Your task to perform on an android device: See recent photos Image 0: 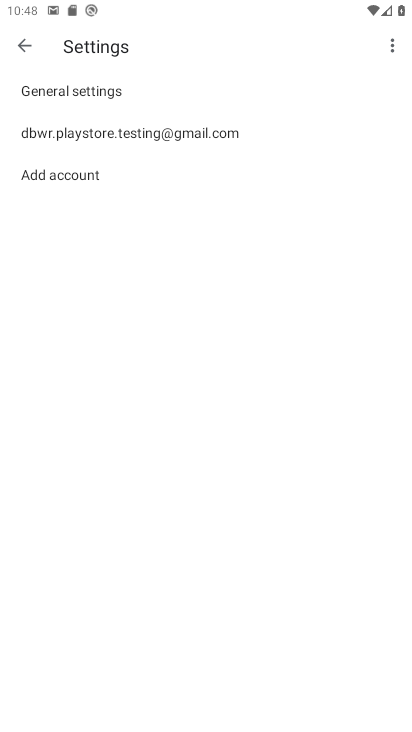
Step 0: press home button
Your task to perform on an android device: See recent photos Image 1: 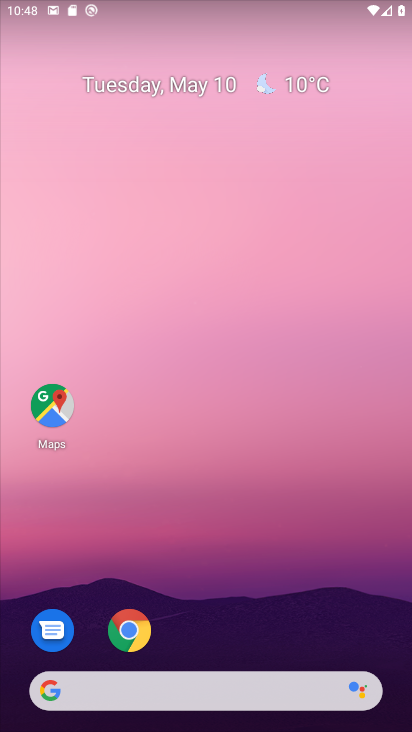
Step 1: drag from (257, 633) to (268, 105)
Your task to perform on an android device: See recent photos Image 2: 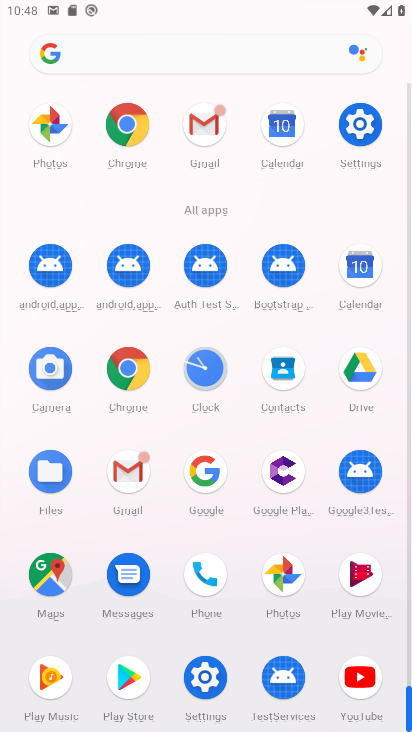
Step 2: click (282, 581)
Your task to perform on an android device: See recent photos Image 3: 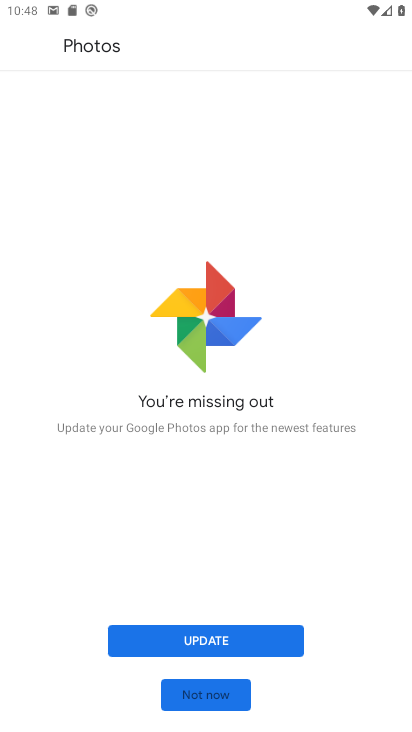
Step 3: click (223, 634)
Your task to perform on an android device: See recent photos Image 4: 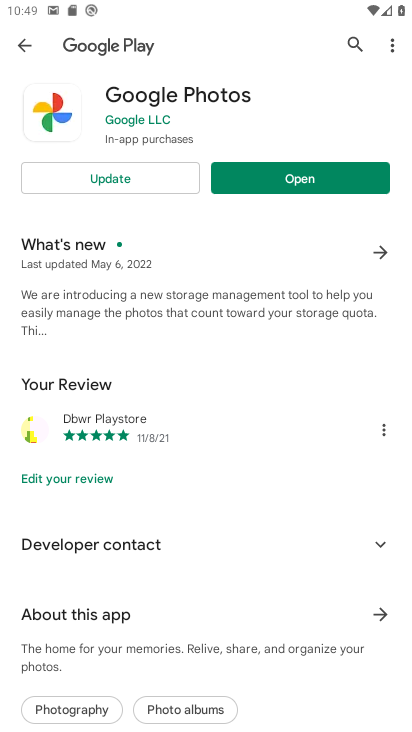
Step 4: click (141, 175)
Your task to perform on an android device: See recent photos Image 5: 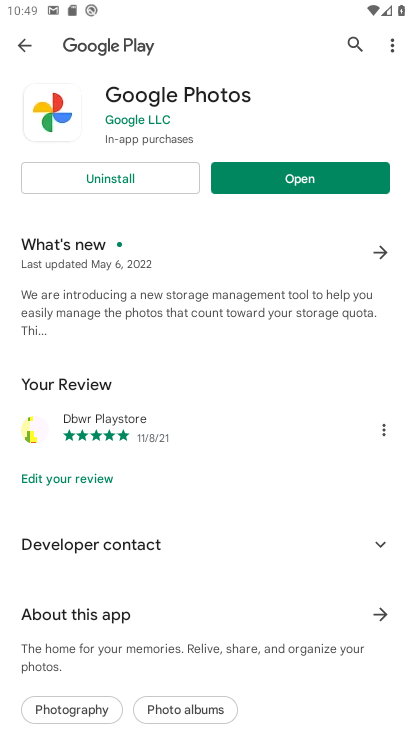
Step 5: click (298, 181)
Your task to perform on an android device: See recent photos Image 6: 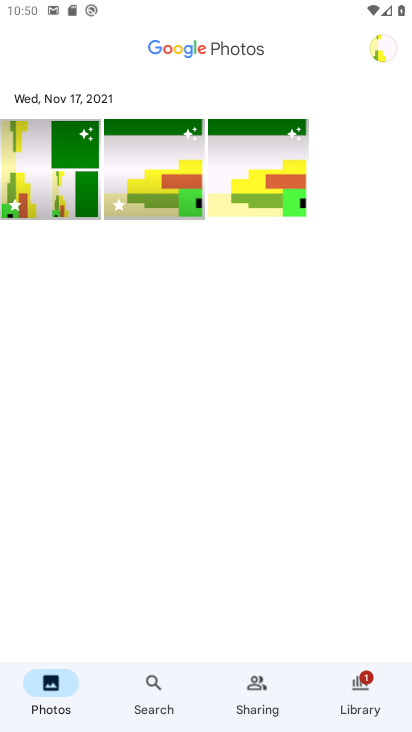
Step 6: click (157, 684)
Your task to perform on an android device: See recent photos Image 7: 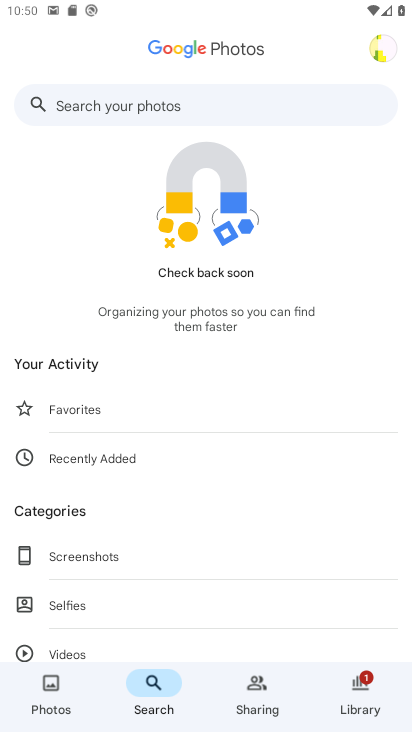
Step 7: click (118, 459)
Your task to perform on an android device: See recent photos Image 8: 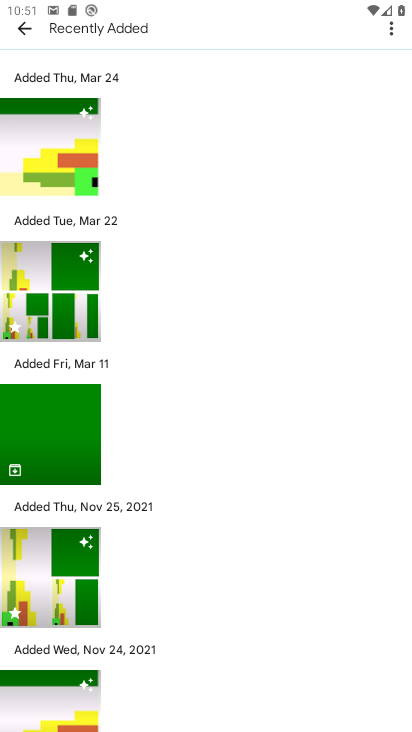
Step 8: task complete